Your task to perform on an android device: open the mobile data screen to see how much data has been used Image 0: 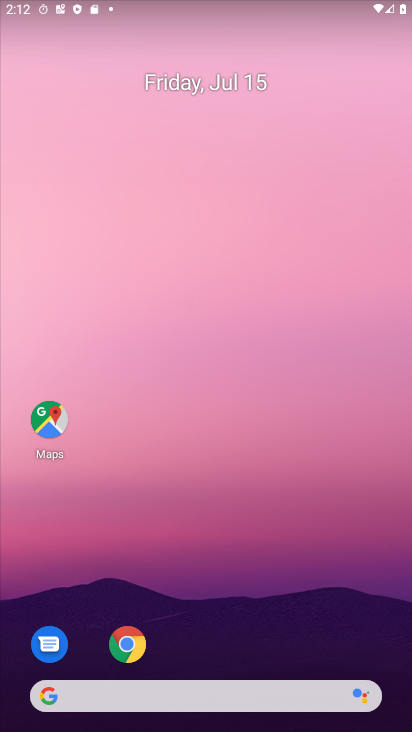
Step 0: drag from (404, 650) to (286, 53)
Your task to perform on an android device: open the mobile data screen to see how much data has been used Image 1: 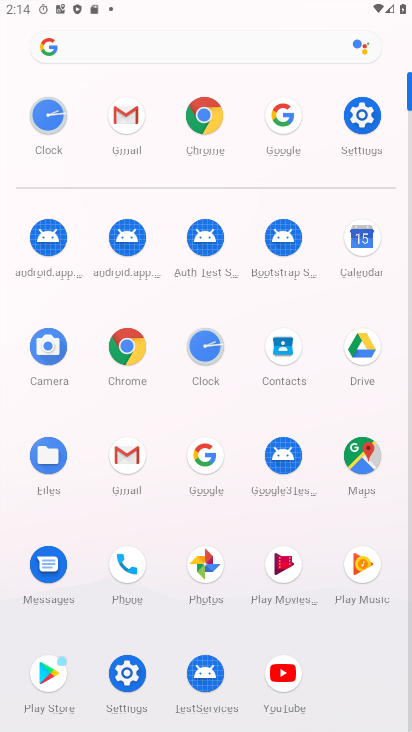
Step 1: click (365, 118)
Your task to perform on an android device: open the mobile data screen to see how much data has been used Image 2: 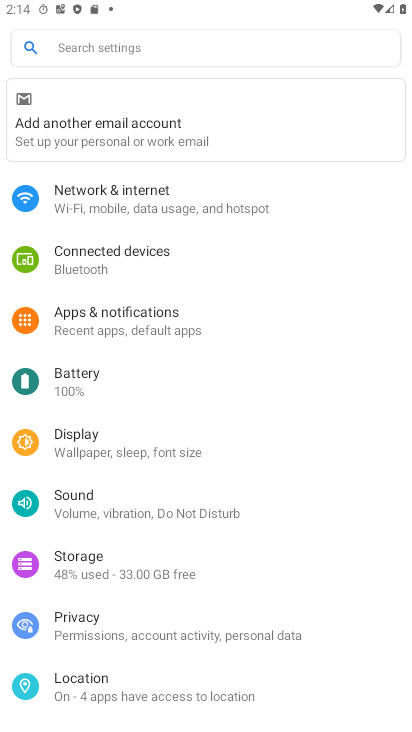
Step 2: click (116, 204)
Your task to perform on an android device: open the mobile data screen to see how much data has been used Image 3: 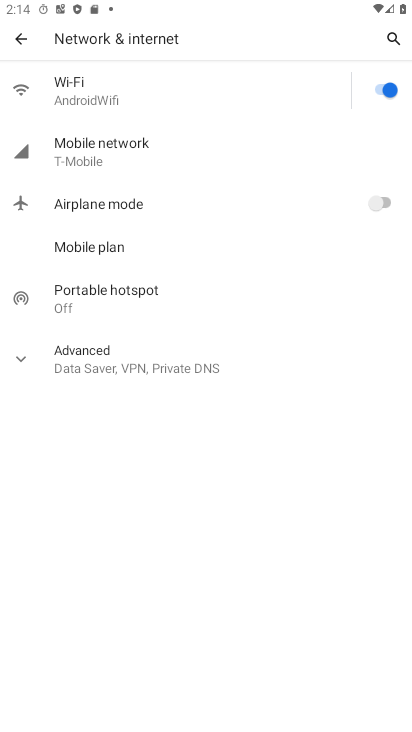
Step 3: click (114, 155)
Your task to perform on an android device: open the mobile data screen to see how much data has been used Image 4: 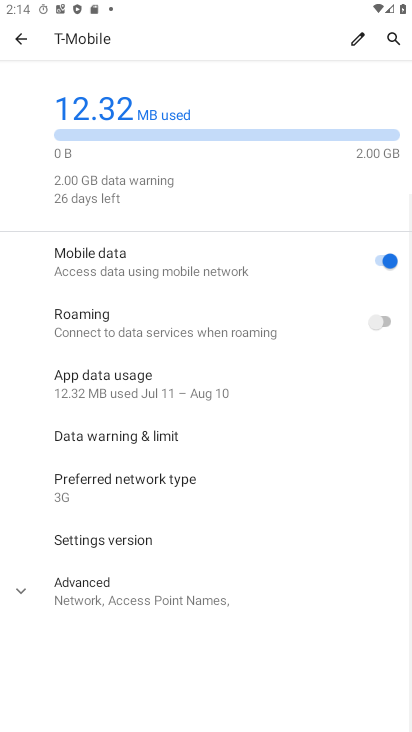
Step 4: click (117, 381)
Your task to perform on an android device: open the mobile data screen to see how much data has been used Image 5: 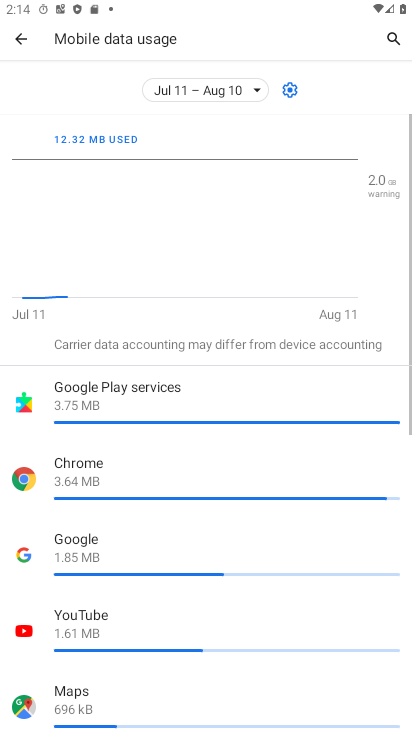
Step 5: task complete